Your task to perform on an android device: delete the emails in spam in the gmail app Image 0: 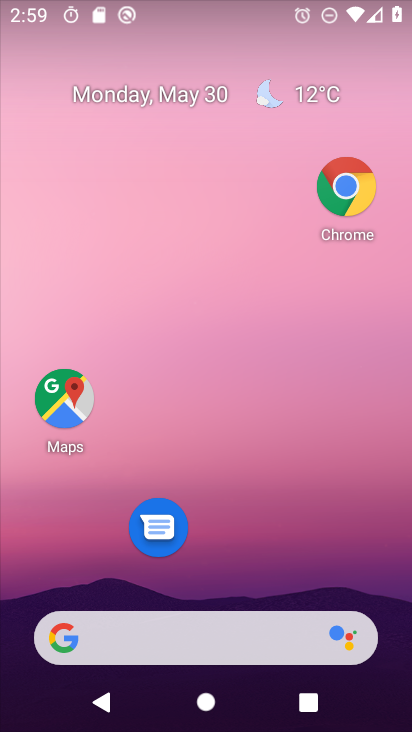
Step 0: drag from (234, 590) to (214, 75)
Your task to perform on an android device: delete the emails in spam in the gmail app Image 1: 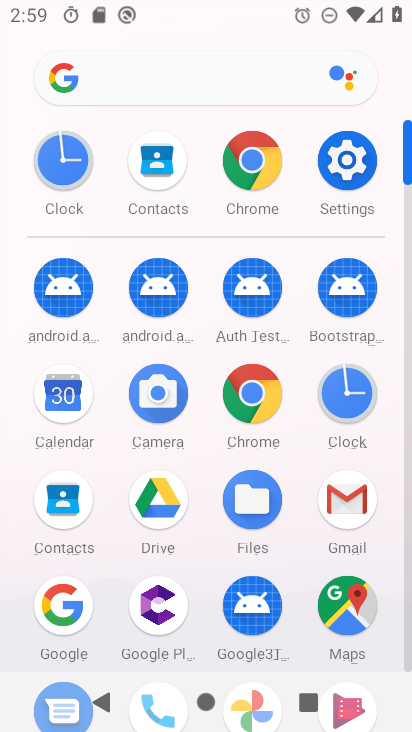
Step 1: click (343, 519)
Your task to perform on an android device: delete the emails in spam in the gmail app Image 2: 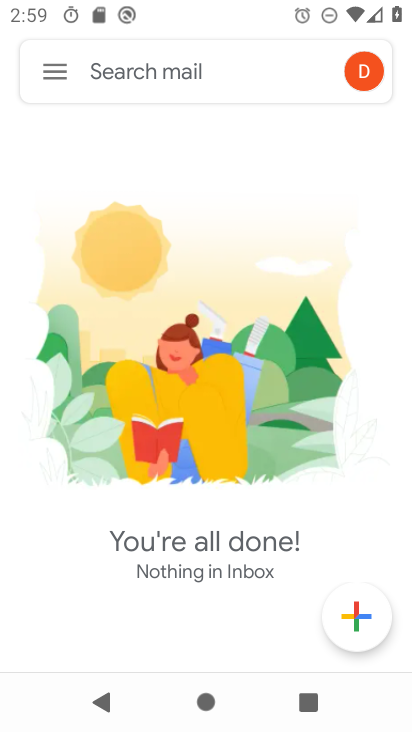
Step 2: click (51, 87)
Your task to perform on an android device: delete the emails in spam in the gmail app Image 3: 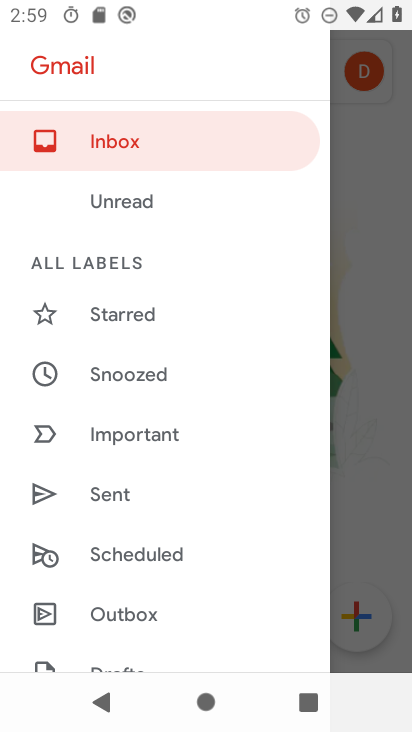
Step 3: drag from (146, 597) to (168, 166)
Your task to perform on an android device: delete the emails in spam in the gmail app Image 4: 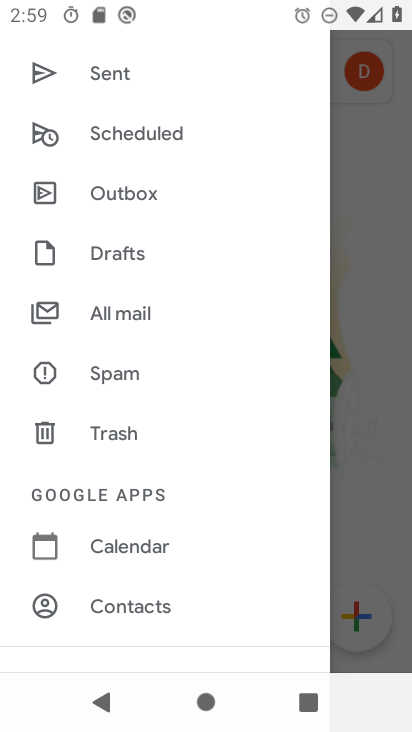
Step 4: click (169, 369)
Your task to perform on an android device: delete the emails in spam in the gmail app Image 5: 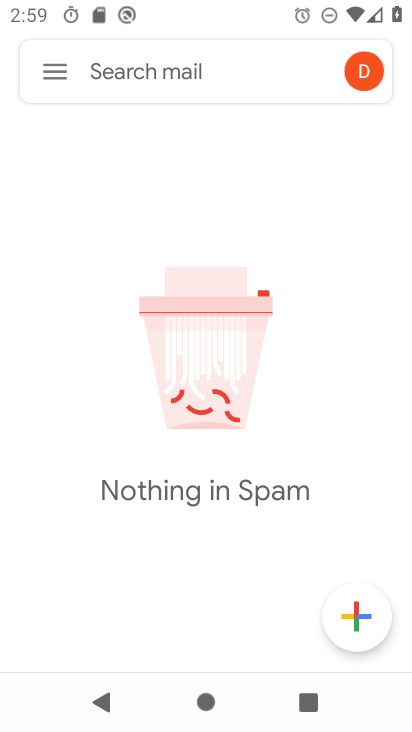
Step 5: task complete